Your task to perform on an android device: Go to ESPN.com Image 0: 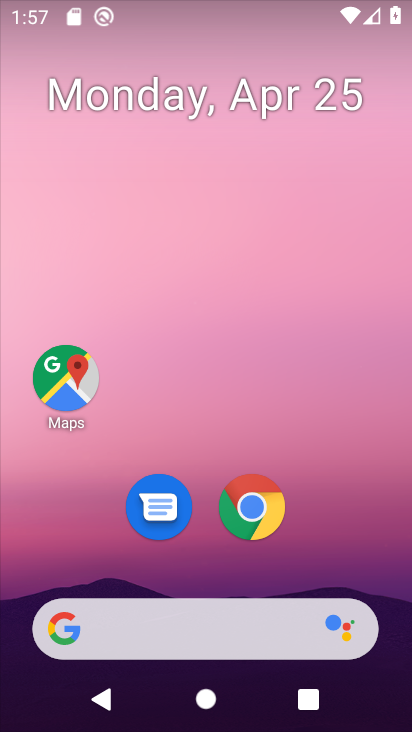
Step 0: press home button
Your task to perform on an android device: Go to ESPN.com Image 1: 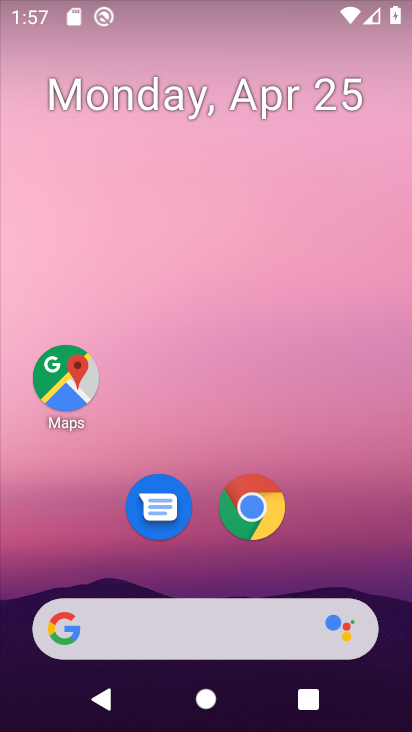
Step 1: drag from (167, 628) to (295, 140)
Your task to perform on an android device: Go to ESPN.com Image 2: 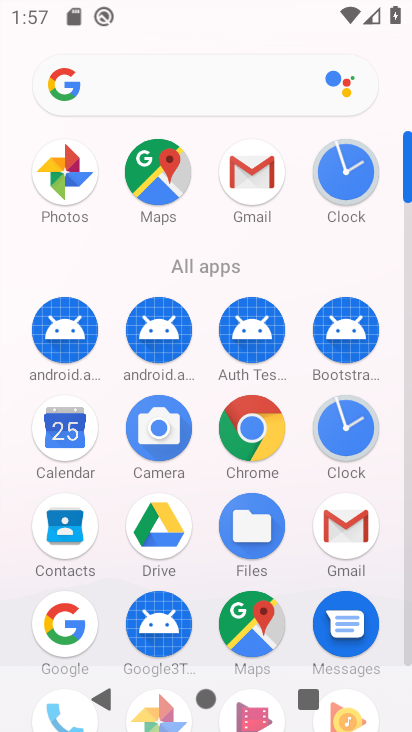
Step 2: click (258, 437)
Your task to perform on an android device: Go to ESPN.com Image 3: 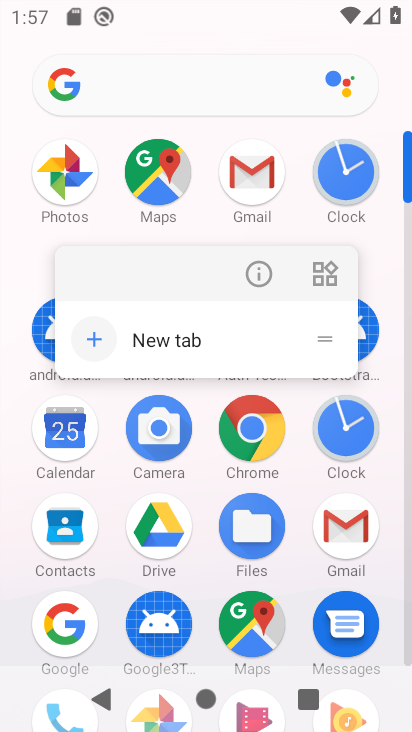
Step 3: click (240, 422)
Your task to perform on an android device: Go to ESPN.com Image 4: 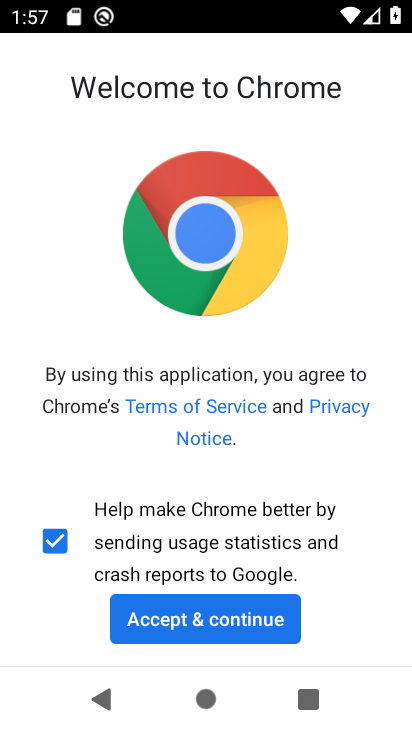
Step 4: click (202, 624)
Your task to perform on an android device: Go to ESPN.com Image 5: 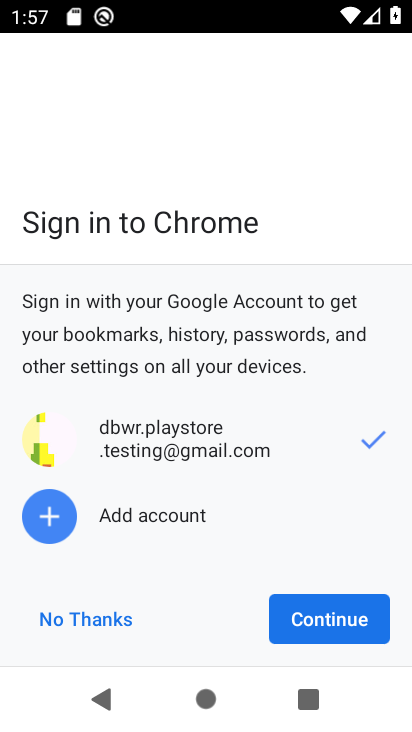
Step 5: click (331, 612)
Your task to perform on an android device: Go to ESPN.com Image 6: 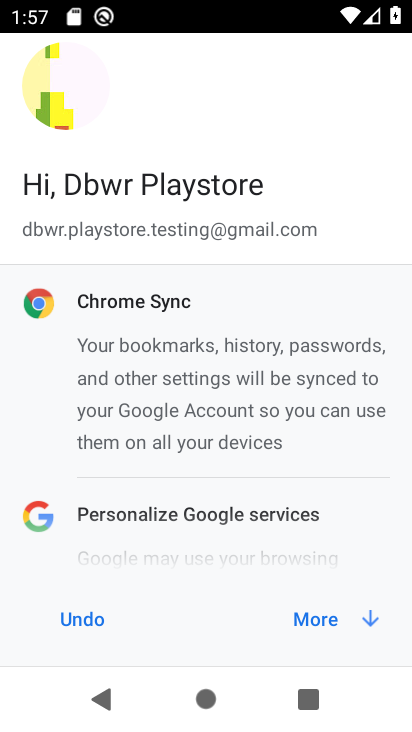
Step 6: click (323, 619)
Your task to perform on an android device: Go to ESPN.com Image 7: 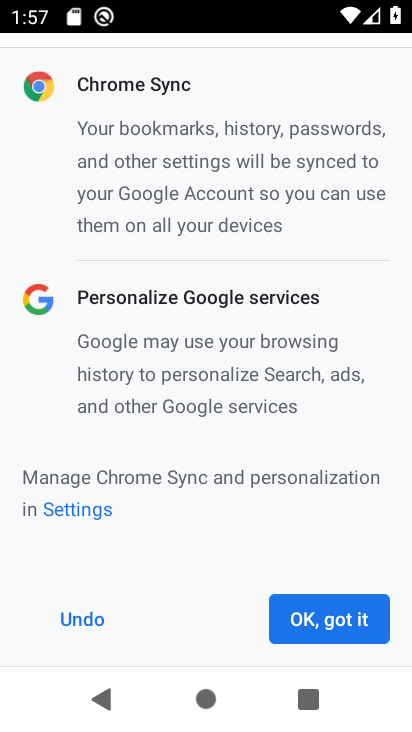
Step 7: click (298, 627)
Your task to perform on an android device: Go to ESPN.com Image 8: 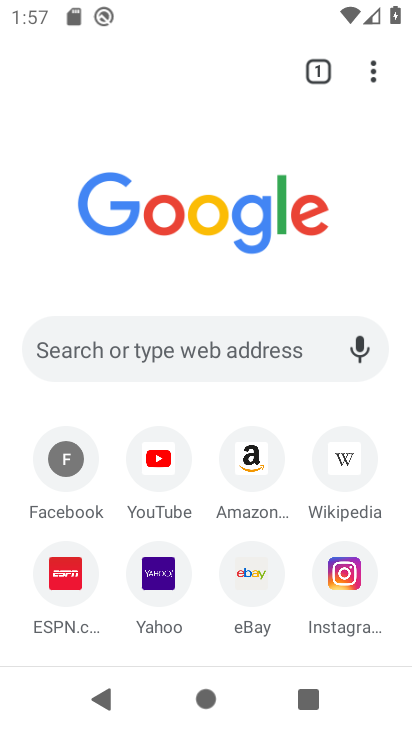
Step 8: click (75, 577)
Your task to perform on an android device: Go to ESPN.com Image 9: 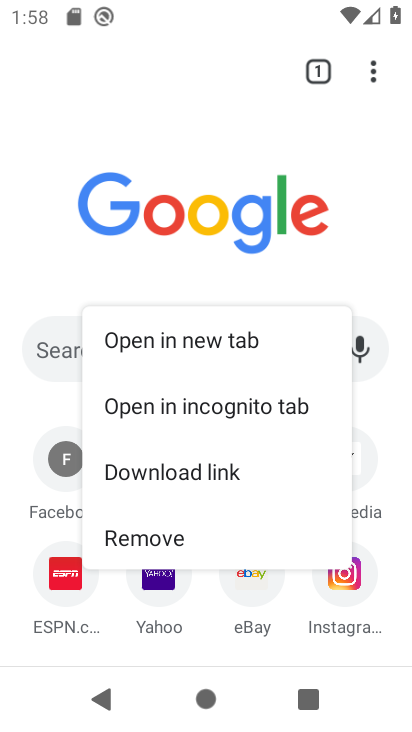
Step 9: click (59, 594)
Your task to perform on an android device: Go to ESPN.com Image 10: 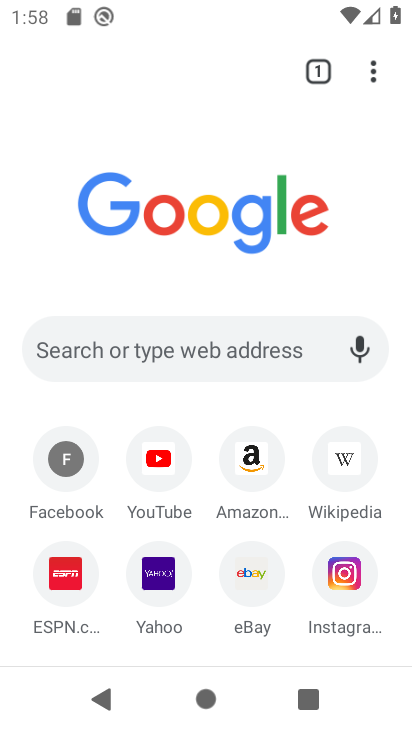
Step 10: click (53, 583)
Your task to perform on an android device: Go to ESPN.com Image 11: 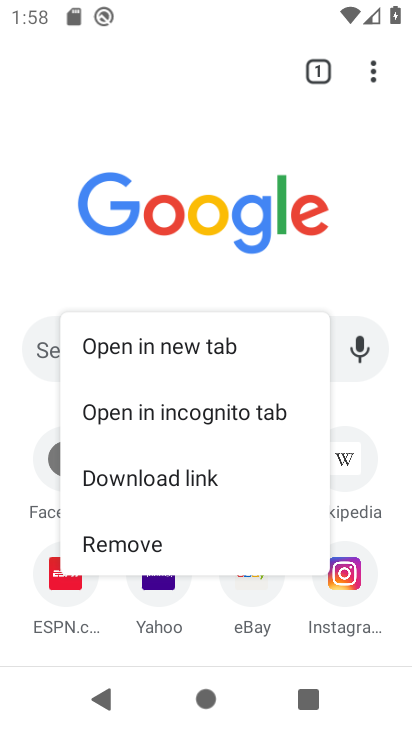
Step 11: click (53, 584)
Your task to perform on an android device: Go to ESPN.com Image 12: 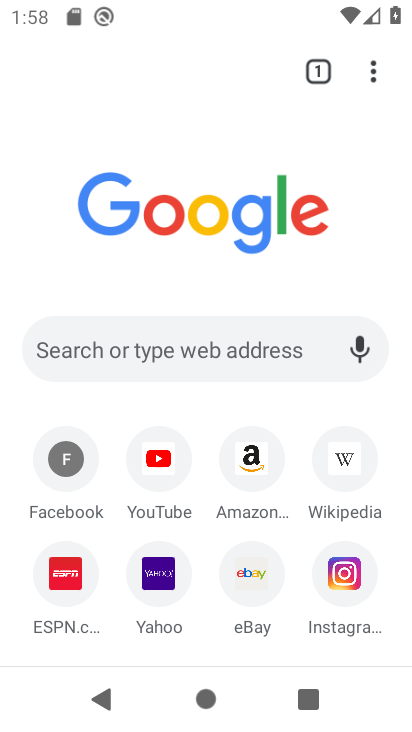
Step 12: click (72, 590)
Your task to perform on an android device: Go to ESPN.com Image 13: 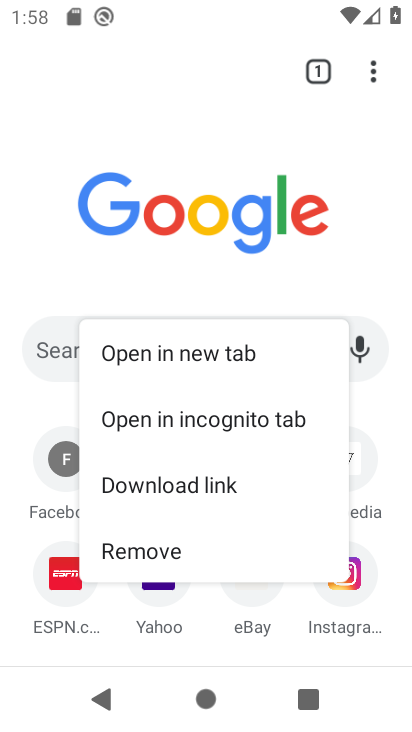
Step 13: click (67, 576)
Your task to perform on an android device: Go to ESPN.com Image 14: 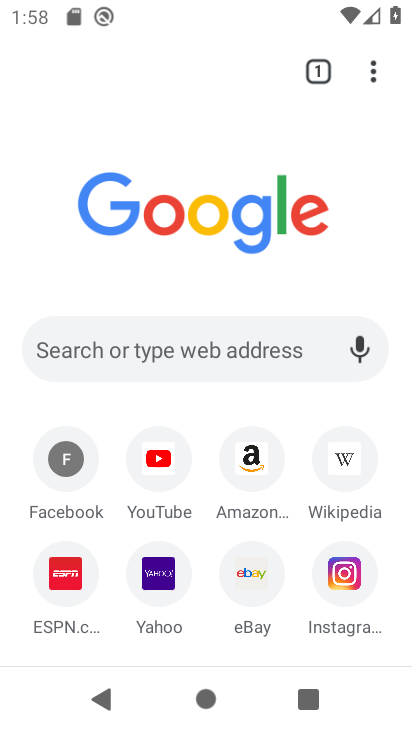
Step 14: click (57, 583)
Your task to perform on an android device: Go to ESPN.com Image 15: 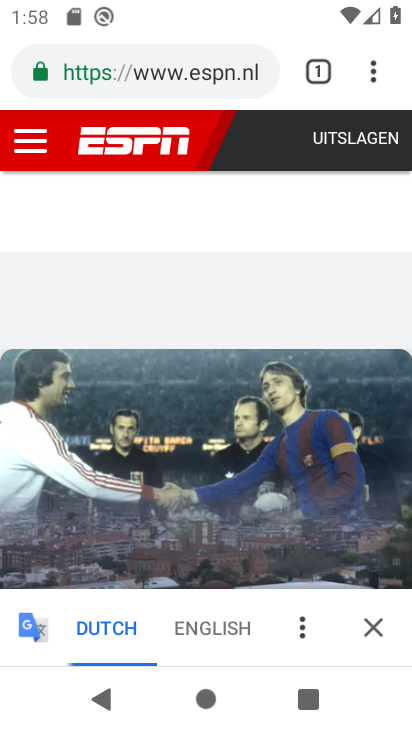
Step 15: task complete